Your task to perform on an android device: Open display settings Image 0: 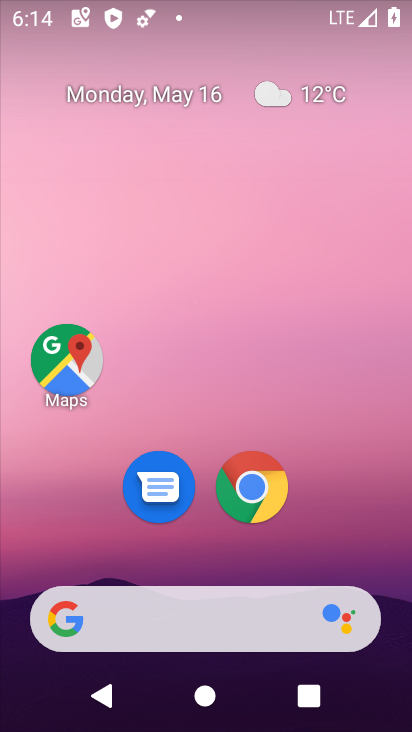
Step 0: drag from (356, 502) to (344, 112)
Your task to perform on an android device: Open display settings Image 1: 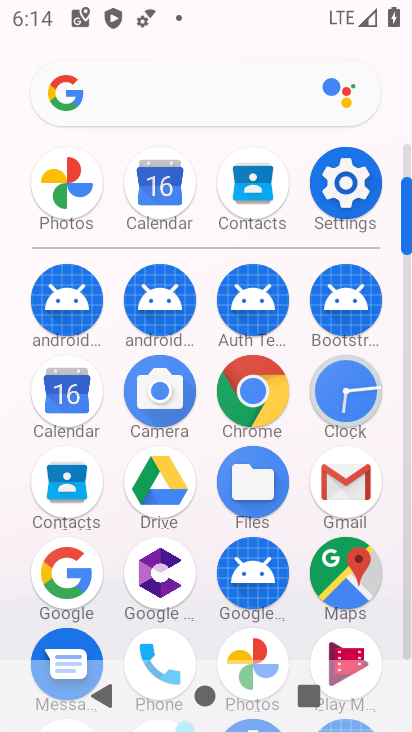
Step 1: click (334, 191)
Your task to perform on an android device: Open display settings Image 2: 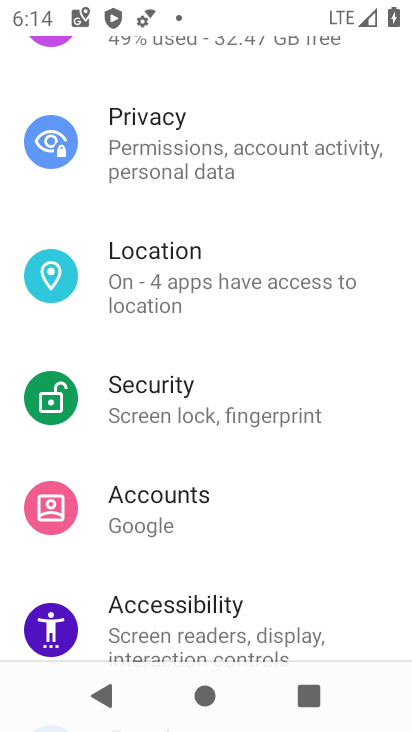
Step 2: drag from (238, 151) to (234, 517)
Your task to perform on an android device: Open display settings Image 3: 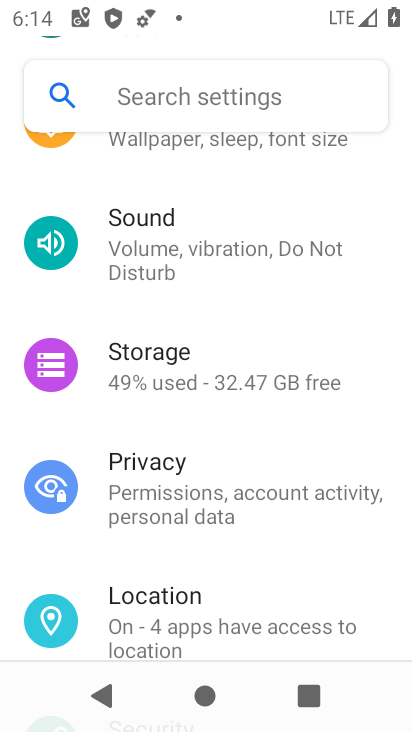
Step 3: drag from (231, 204) to (261, 514)
Your task to perform on an android device: Open display settings Image 4: 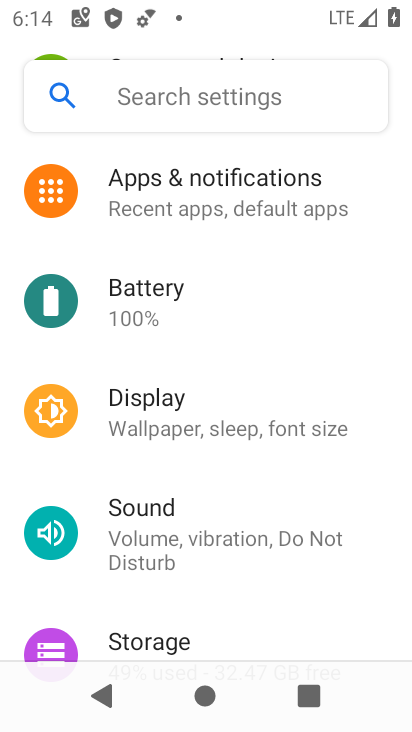
Step 4: click (177, 403)
Your task to perform on an android device: Open display settings Image 5: 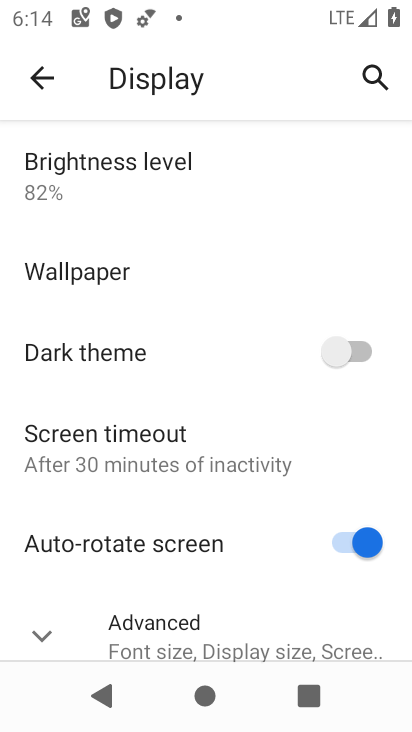
Step 5: task complete